Your task to perform on an android device: clear all cookies in the chrome app Image 0: 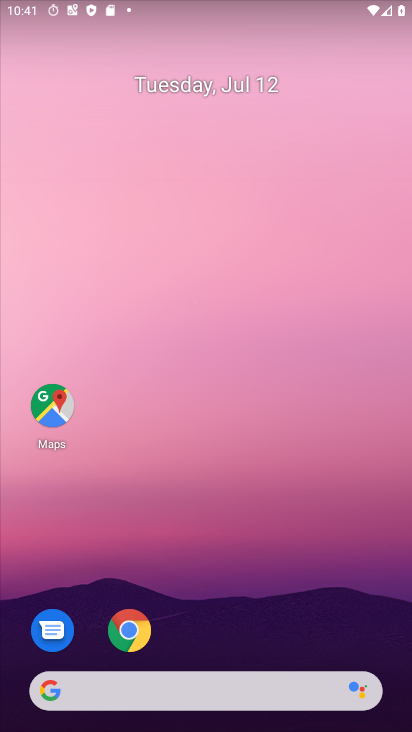
Step 0: click (122, 630)
Your task to perform on an android device: clear all cookies in the chrome app Image 1: 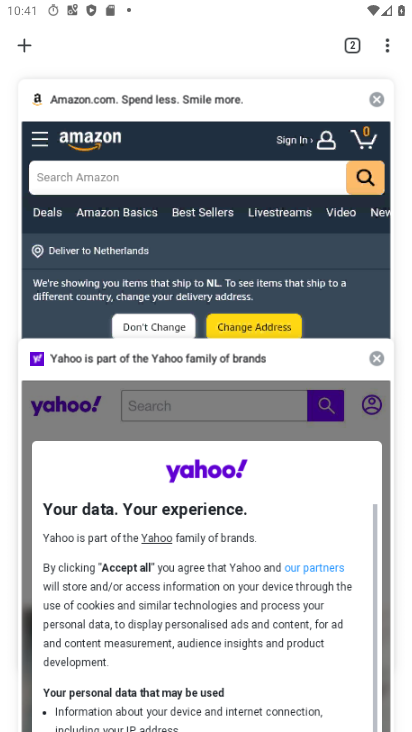
Step 1: click (381, 46)
Your task to perform on an android device: clear all cookies in the chrome app Image 2: 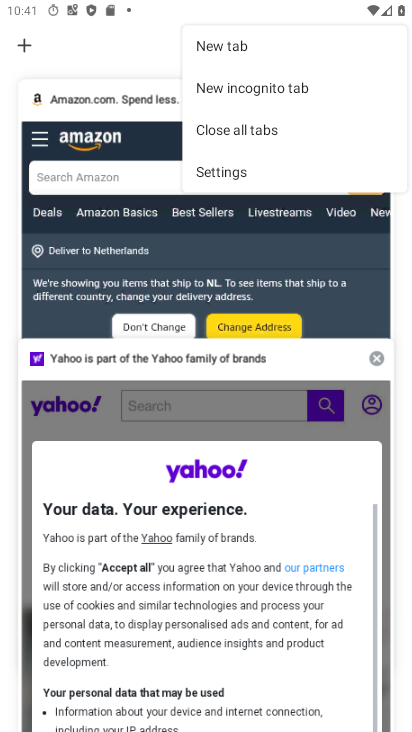
Step 2: click (248, 168)
Your task to perform on an android device: clear all cookies in the chrome app Image 3: 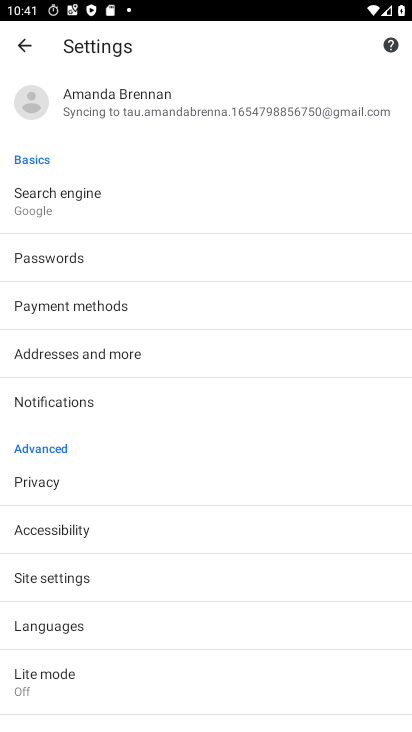
Step 3: click (63, 482)
Your task to perform on an android device: clear all cookies in the chrome app Image 4: 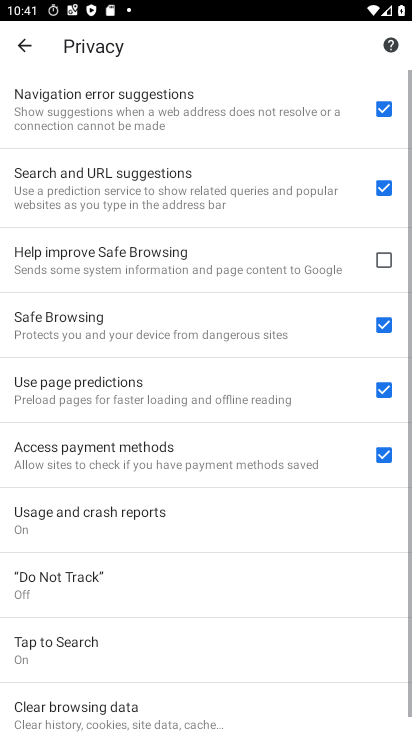
Step 4: drag from (227, 579) to (229, 226)
Your task to perform on an android device: clear all cookies in the chrome app Image 5: 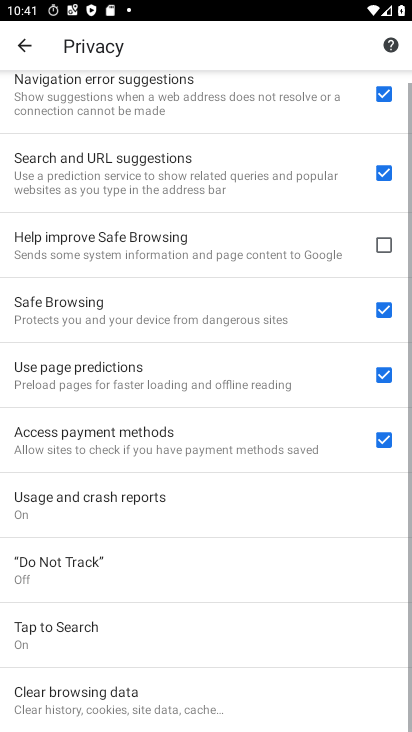
Step 5: click (125, 699)
Your task to perform on an android device: clear all cookies in the chrome app Image 6: 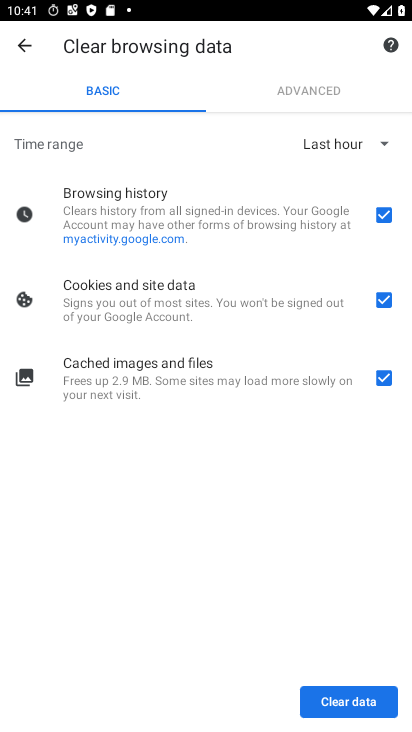
Step 6: click (380, 210)
Your task to perform on an android device: clear all cookies in the chrome app Image 7: 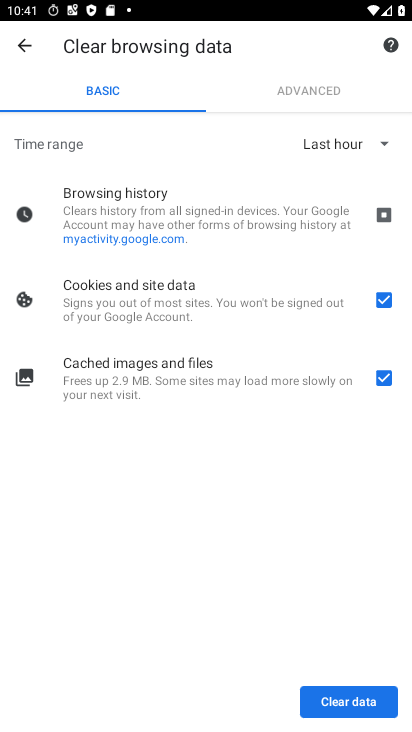
Step 7: click (382, 376)
Your task to perform on an android device: clear all cookies in the chrome app Image 8: 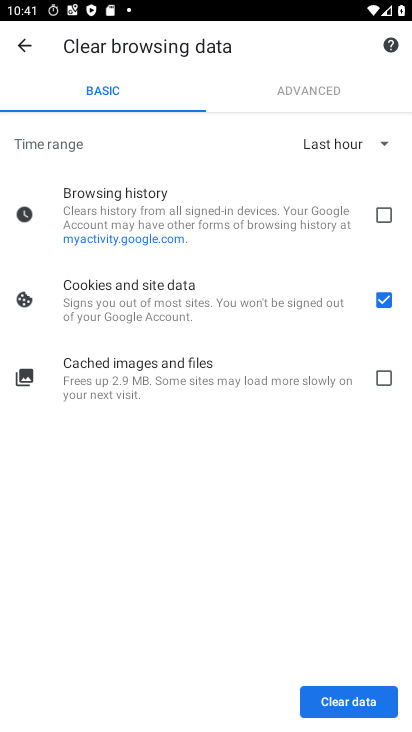
Step 8: click (360, 697)
Your task to perform on an android device: clear all cookies in the chrome app Image 9: 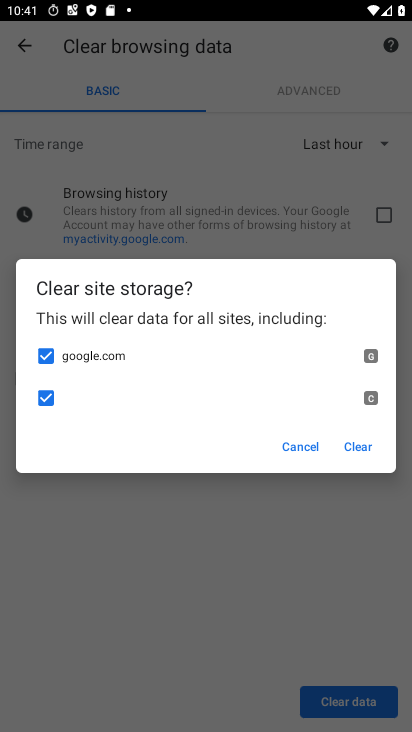
Step 9: click (357, 451)
Your task to perform on an android device: clear all cookies in the chrome app Image 10: 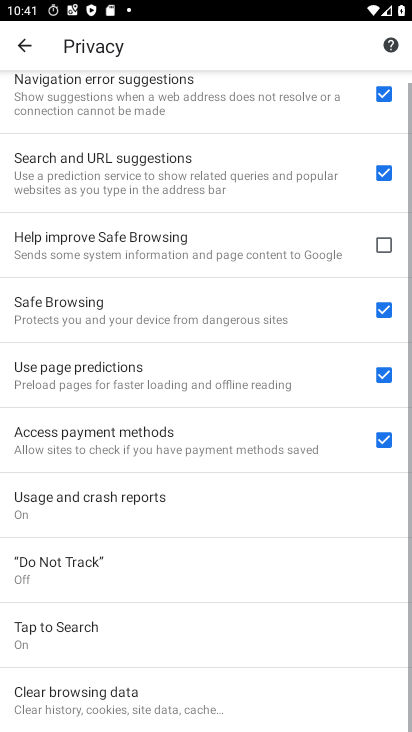
Step 10: task complete